Your task to perform on an android device: Open Amazon Image 0: 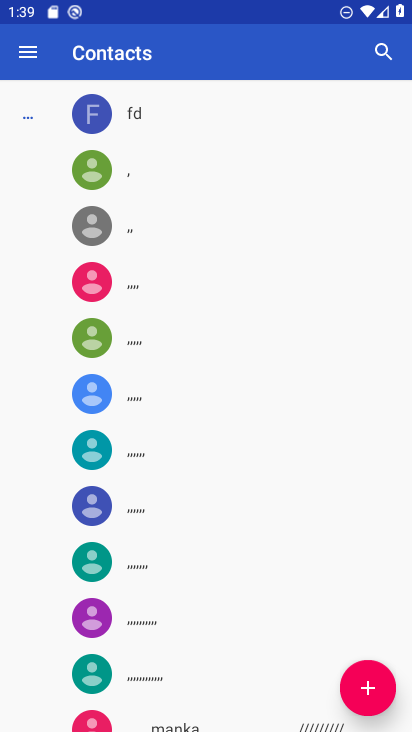
Step 0: press home button
Your task to perform on an android device: Open Amazon Image 1: 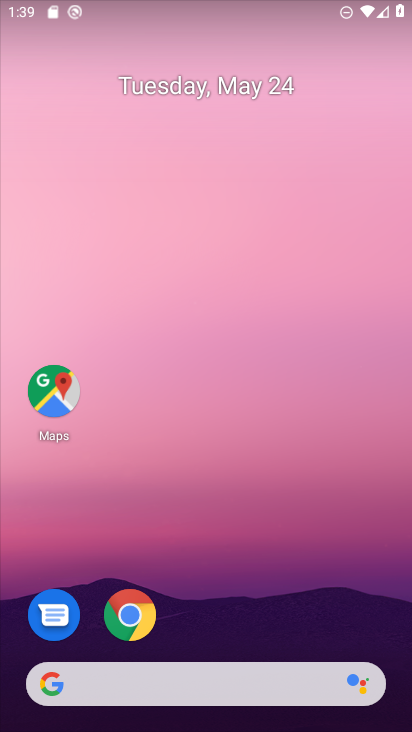
Step 1: click (133, 605)
Your task to perform on an android device: Open Amazon Image 2: 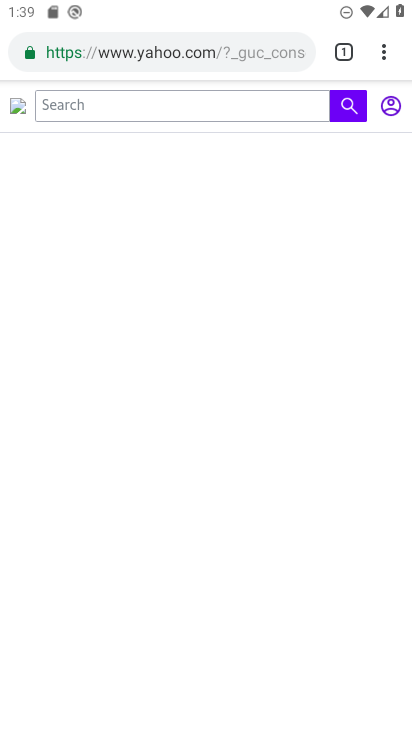
Step 2: click (341, 48)
Your task to perform on an android device: Open Amazon Image 3: 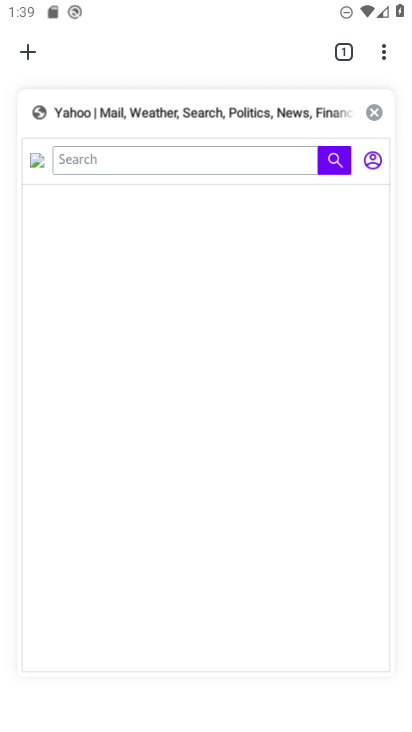
Step 3: click (24, 52)
Your task to perform on an android device: Open Amazon Image 4: 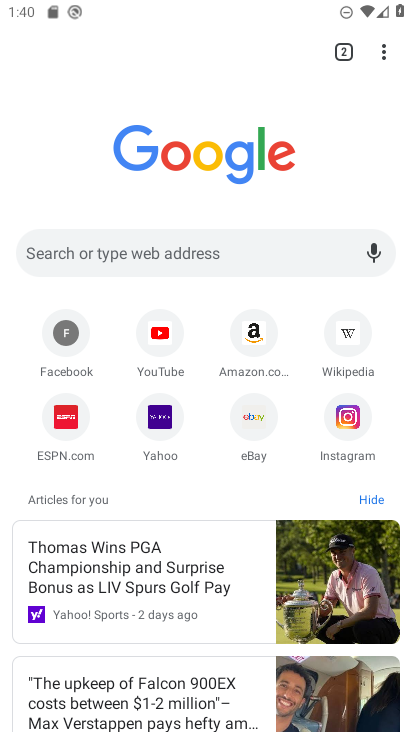
Step 4: click (268, 331)
Your task to perform on an android device: Open Amazon Image 5: 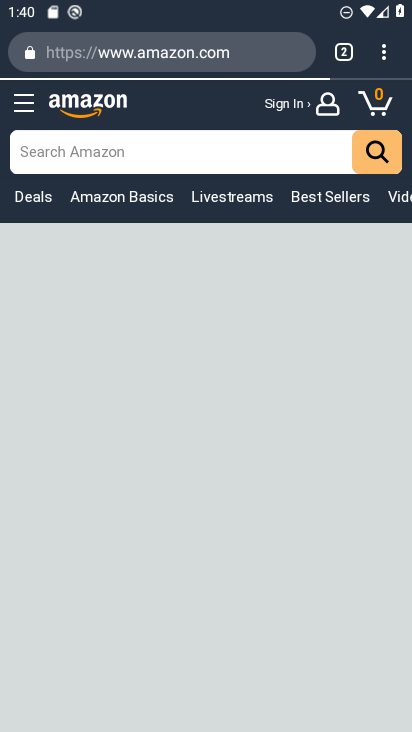
Step 5: task complete